Your task to perform on an android device: turn notification dots on Image 0: 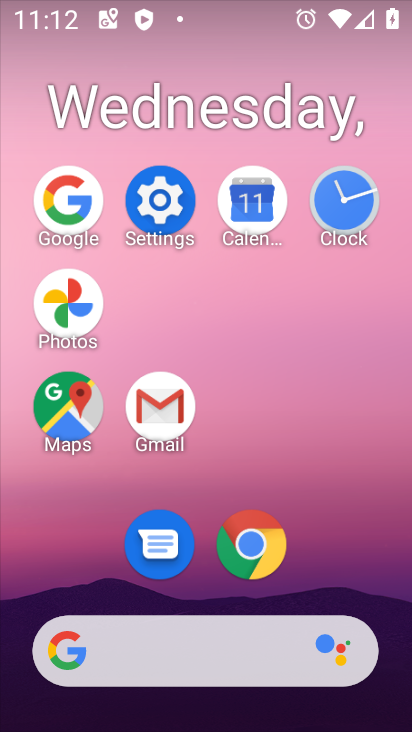
Step 0: click (160, 190)
Your task to perform on an android device: turn notification dots on Image 1: 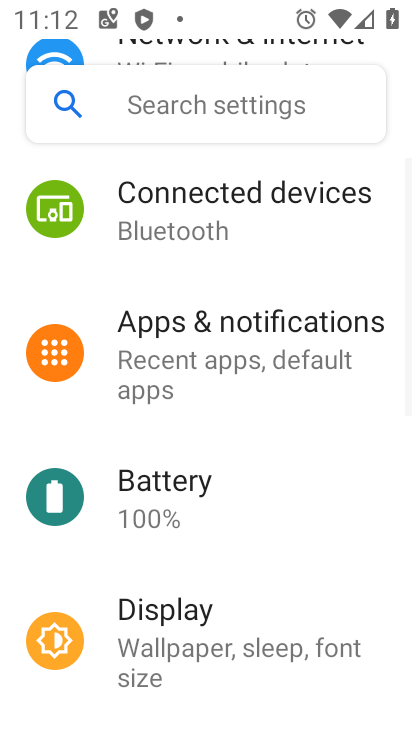
Step 1: drag from (295, 291) to (320, 624)
Your task to perform on an android device: turn notification dots on Image 2: 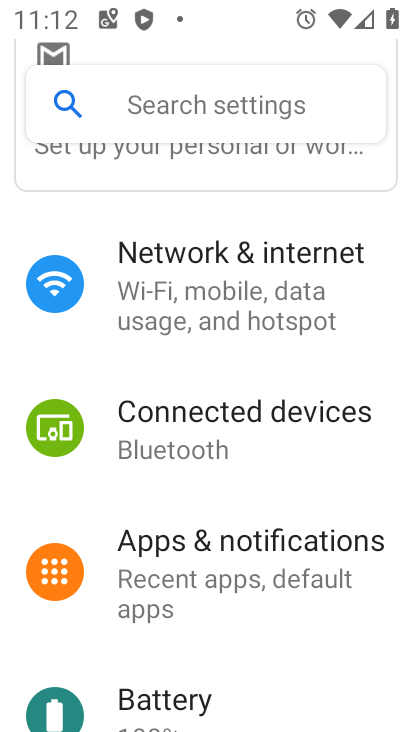
Step 2: click (300, 568)
Your task to perform on an android device: turn notification dots on Image 3: 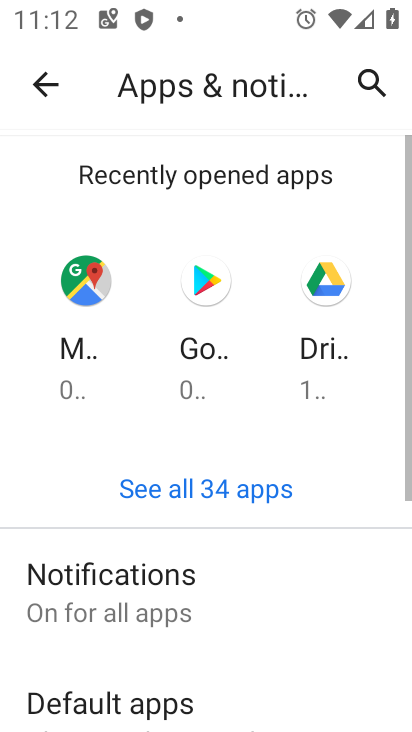
Step 3: click (265, 580)
Your task to perform on an android device: turn notification dots on Image 4: 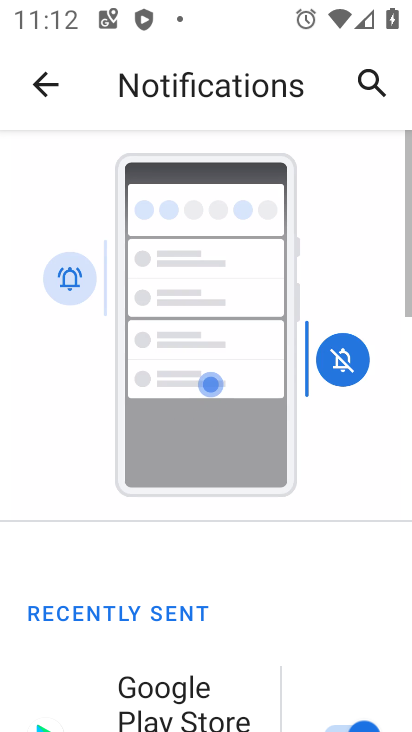
Step 4: drag from (266, 579) to (301, 94)
Your task to perform on an android device: turn notification dots on Image 5: 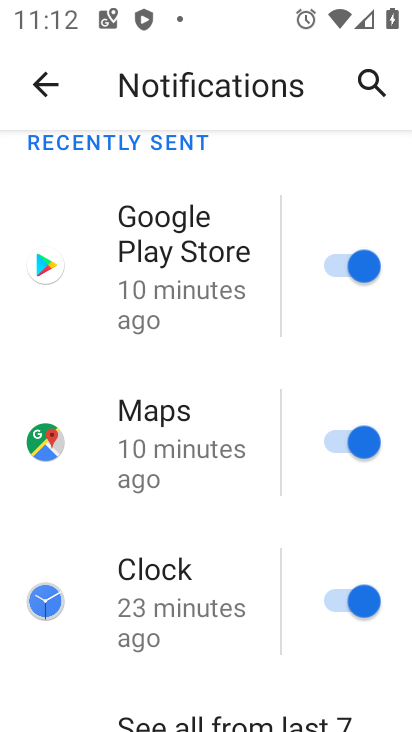
Step 5: drag from (182, 669) to (232, 115)
Your task to perform on an android device: turn notification dots on Image 6: 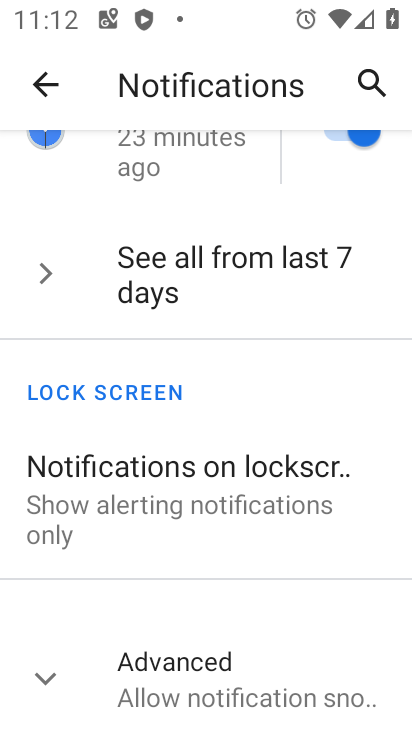
Step 6: click (243, 658)
Your task to perform on an android device: turn notification dots on Image 7: 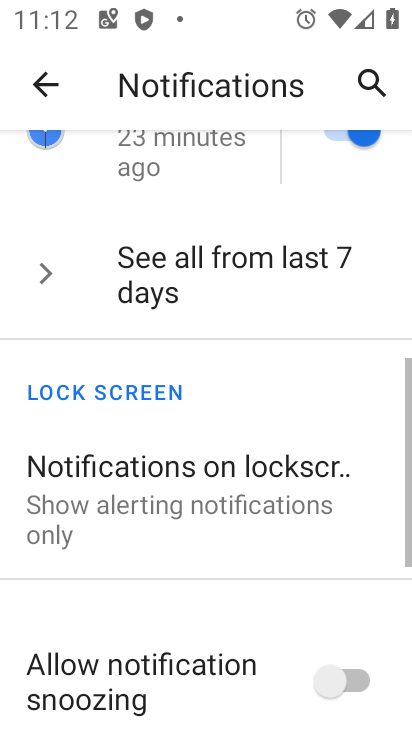
Step 7: task complete